Your task to perform on an android device: Open CNN.com Image 0: 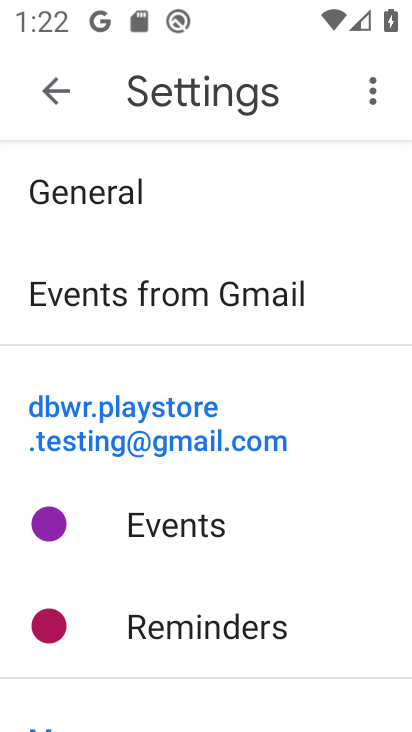
Step 0: press back button
Your task to perform on an android device: Open CNN.com Image 1: 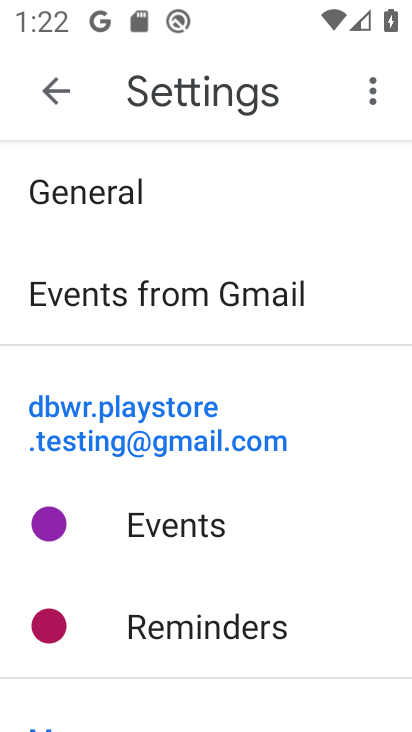
Step 1: press home button
Your task to perform on an android device: Open CNN.com Image 2: 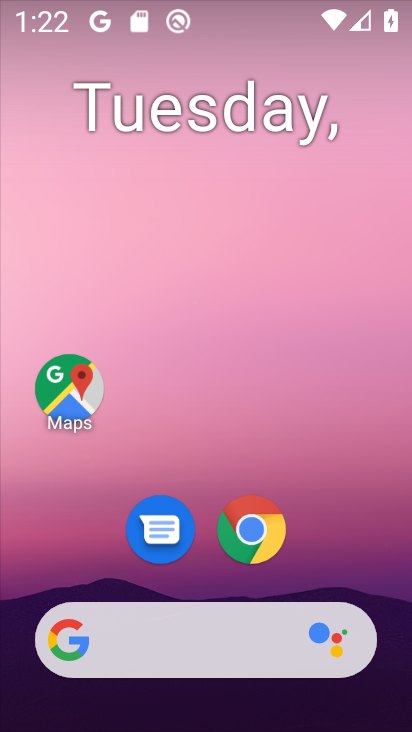
Step 2: click (359, 93)
Your task to perform on an android device: Open CNN.com Image 3: 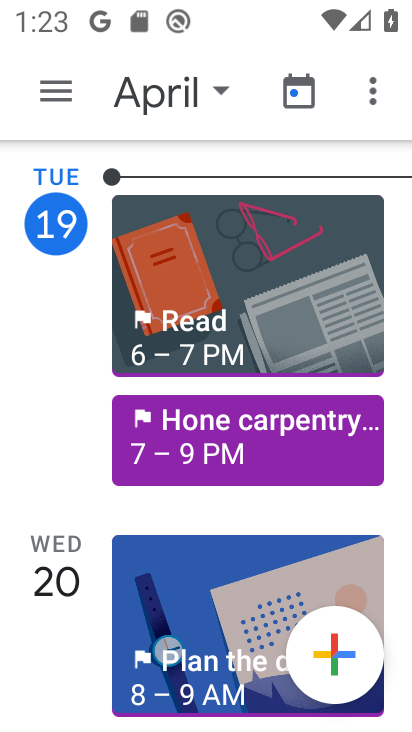
Step 3: click (215, 85)
Your task to perform on an android device: Open CNN.com Image 4: 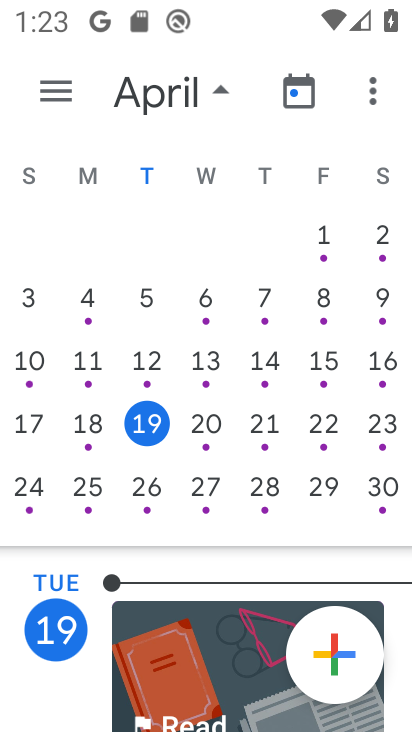
Step 4: press home button
Your task to perform on an android device: Open CNN.com Image 5: 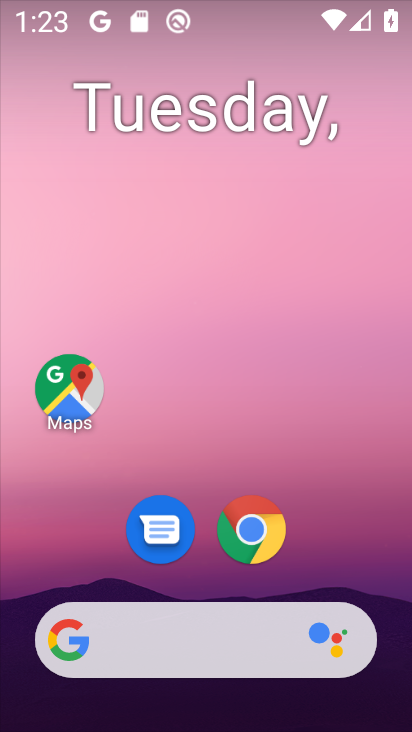
Step 5: click (328, 142)
Your task to perform on an android device: Open CNN.com Image 6: 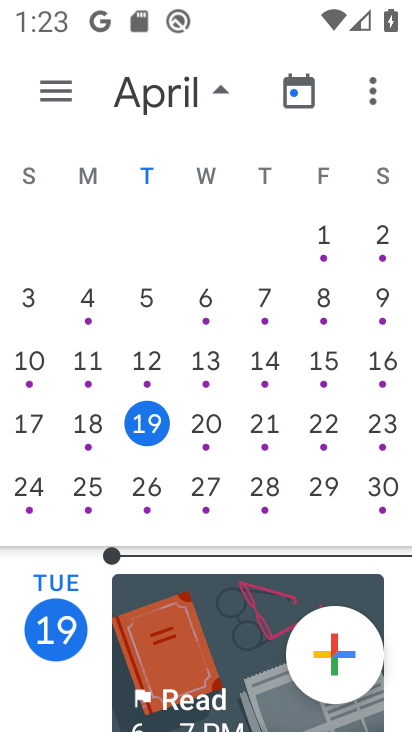
Step 6: press home button
Your task to perform on an android device: Open CNN.com Image 7: 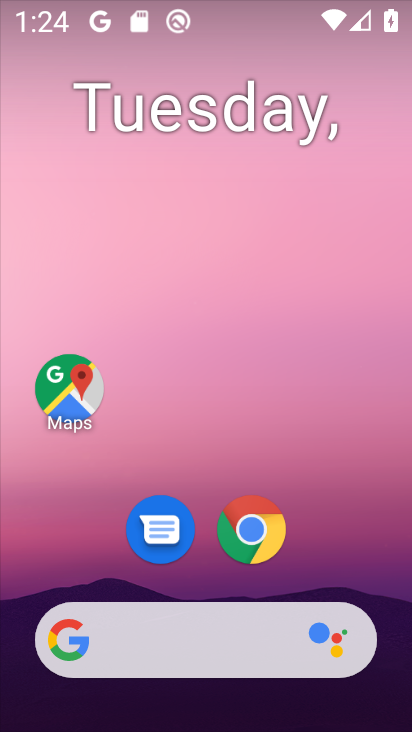
Step 7: click (258, 536)
Your task to perform on an android device: Open CNN.com Image 8: 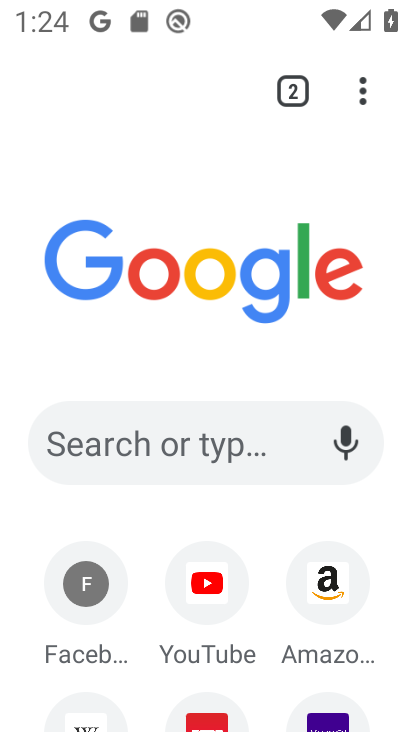
Step 8: click (202, 431)
Your task to perform on an android device: Open CNN.com Image 9: 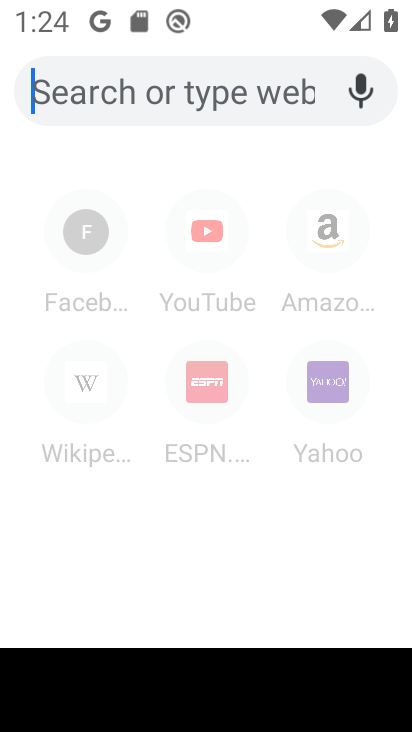
Step 9: type "CNN.com"
Your task to perform on an android device: Open CNN.com Image 10: 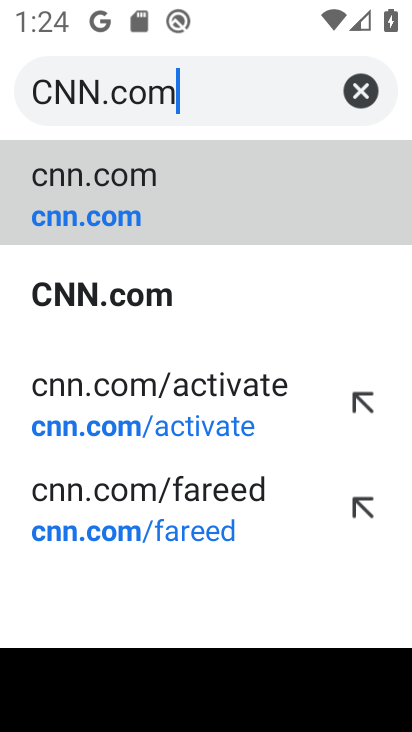
Step 10: click (52, 295)
Your task to perform on an android device: Open CNN.com Image 11: 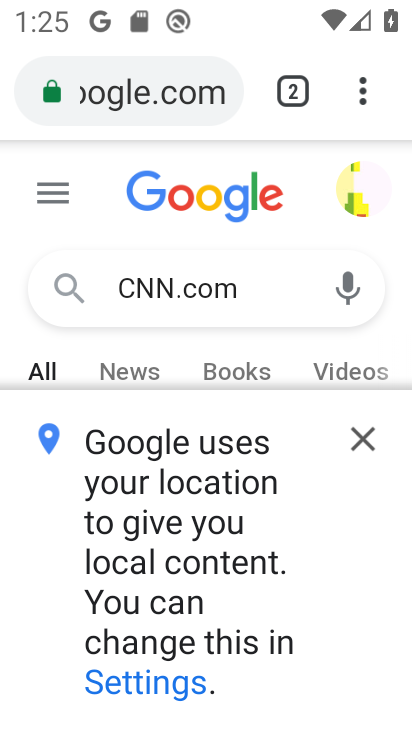
Step 11: task complete